Your task to perform on an android device: toggle sleep mode Image 0: 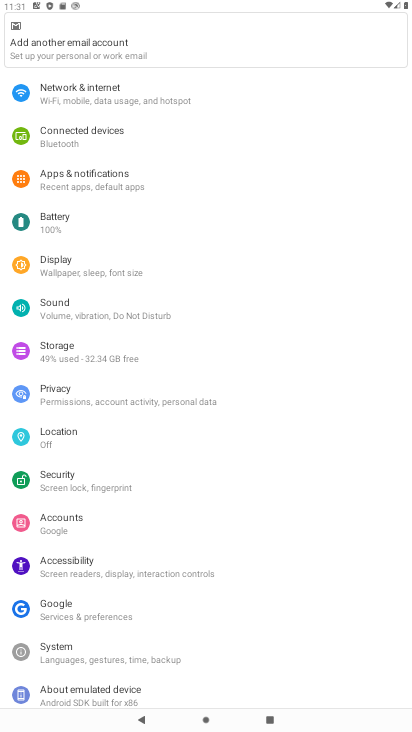
Step 0: press home button
Your task to perform on an android device: toggle sleep mode Image 1: 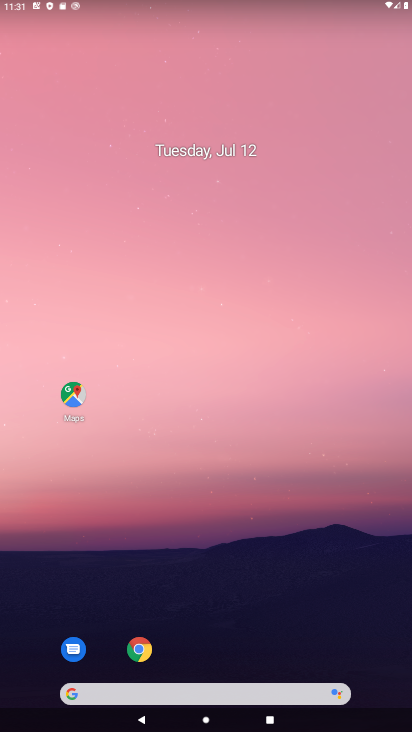
Step 1: drag from (396, 683) to (347, 226)
Your task to perform on an android device: toggle sleep mode Image 2: 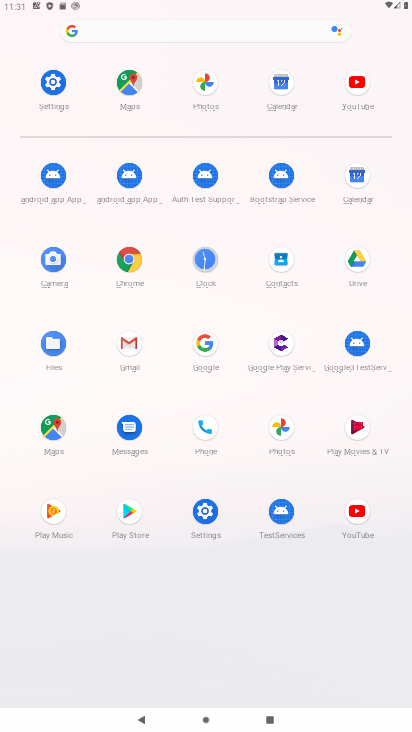
Step 2: click (204, 510)
Your task to perform on an android device: toggle sleep mode Image 3: 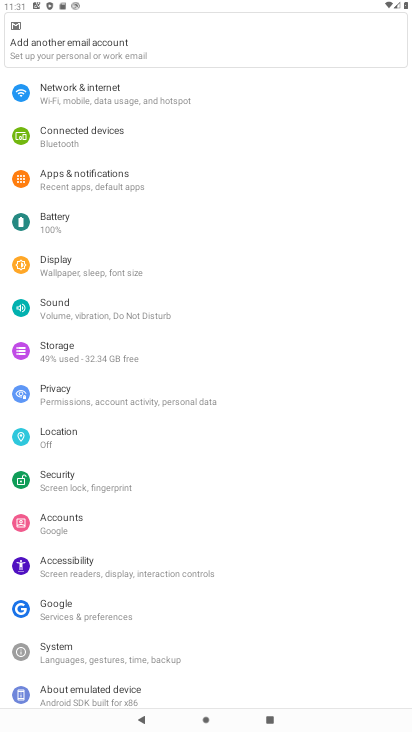
Step 3: click (56, 262)
Your task to perform on an android device: toggle sleep mode Image 4: 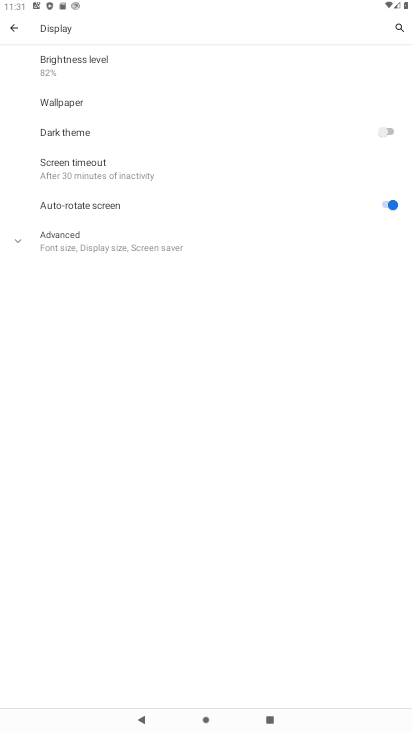
Step 4: click (19, 238)
Your task to perform on an android device: toggle sleep mode Image 5: 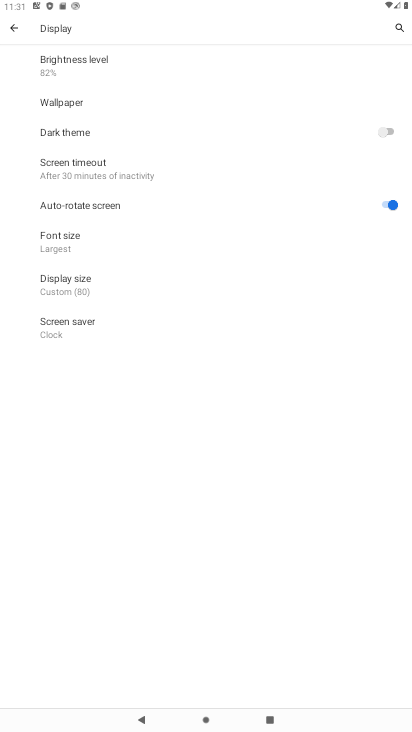
Step 5: task complete